Your task to perform on an android device: move a message to another label in the gmail app Image 0: 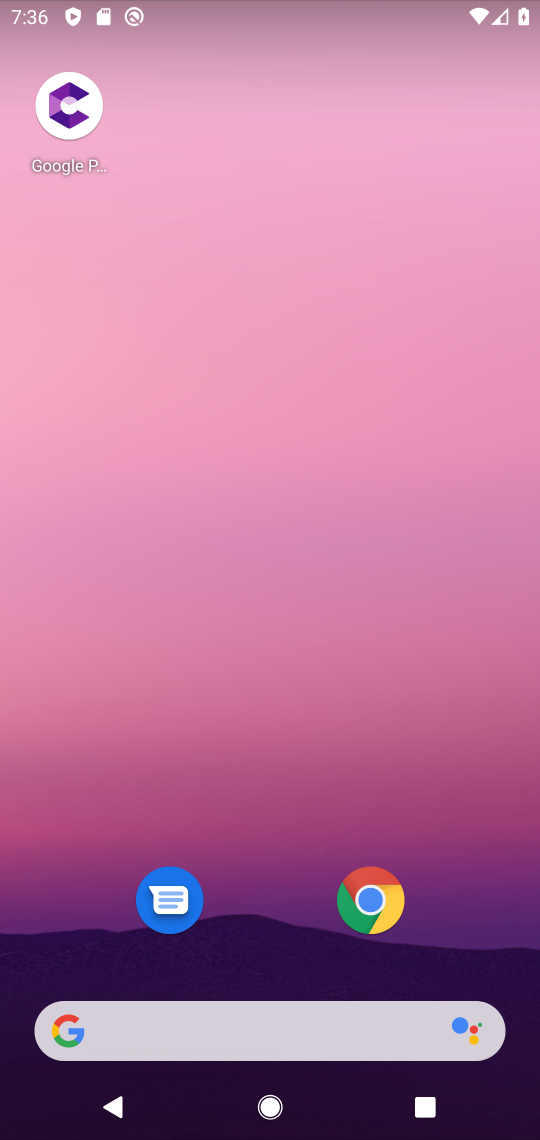
Step 0: drag from (220, 1002) to (189, 98)
Your task to perform on an android device: move a message to another label in the gmail app Image 1: 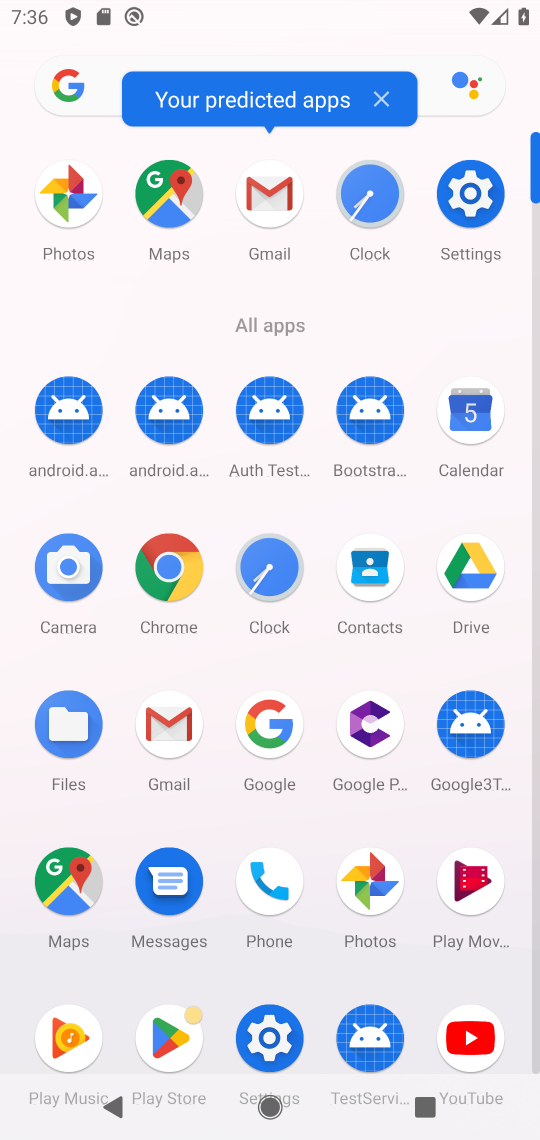
Step 1: click (188, 735)
Your task to perform on an android device: move a message to another label in the gmail app Image 2: 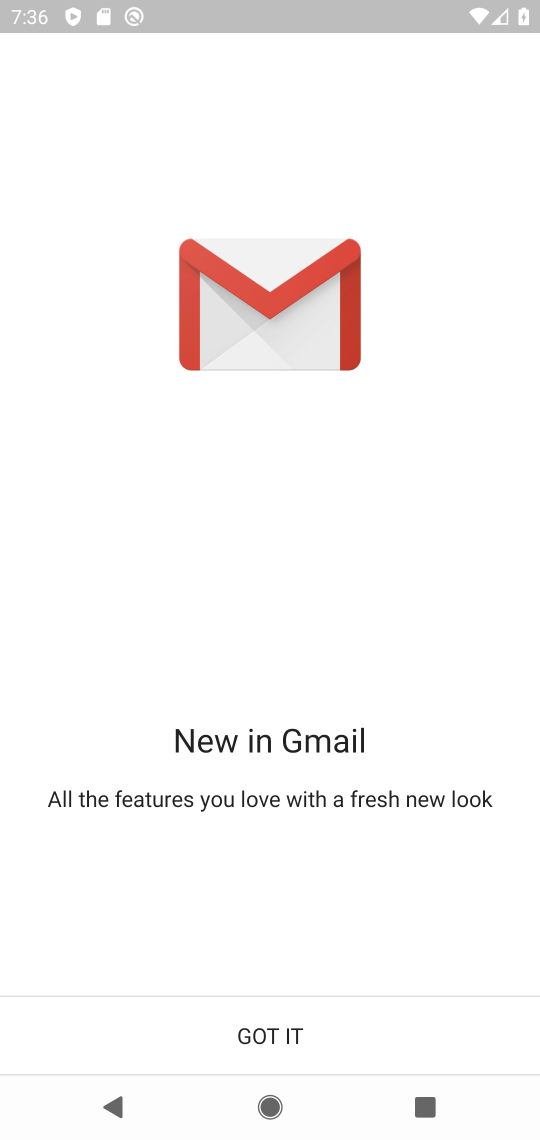
Step 2: click (287, 1013)
Your task to perform on an android device: move a message to another label in the gmail app Image 3: 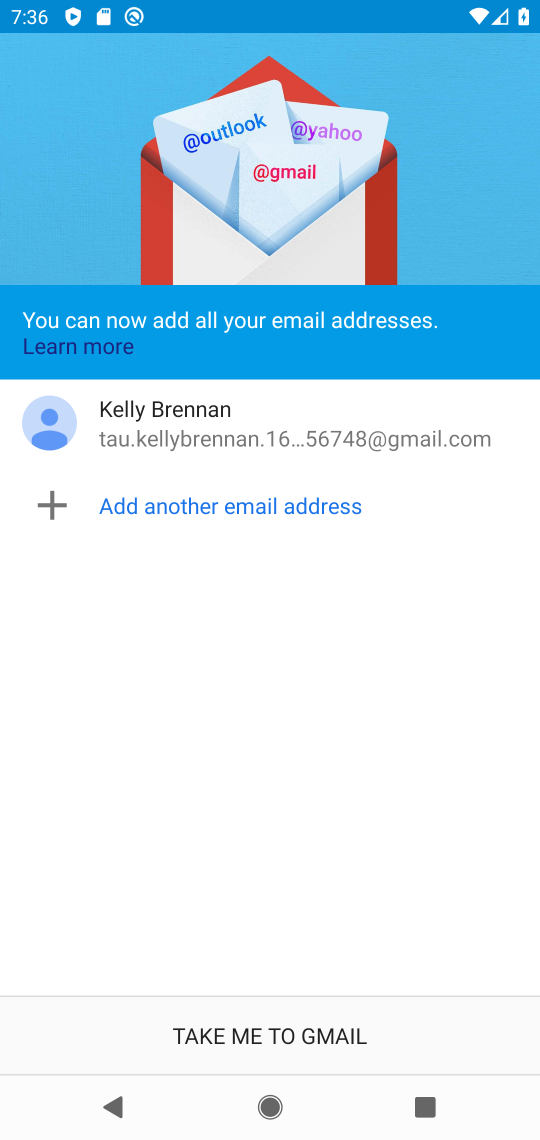
Step 3: click (289, 1038)
Your task to perform on an android device: move a message to another label in the gmail app Image 4: 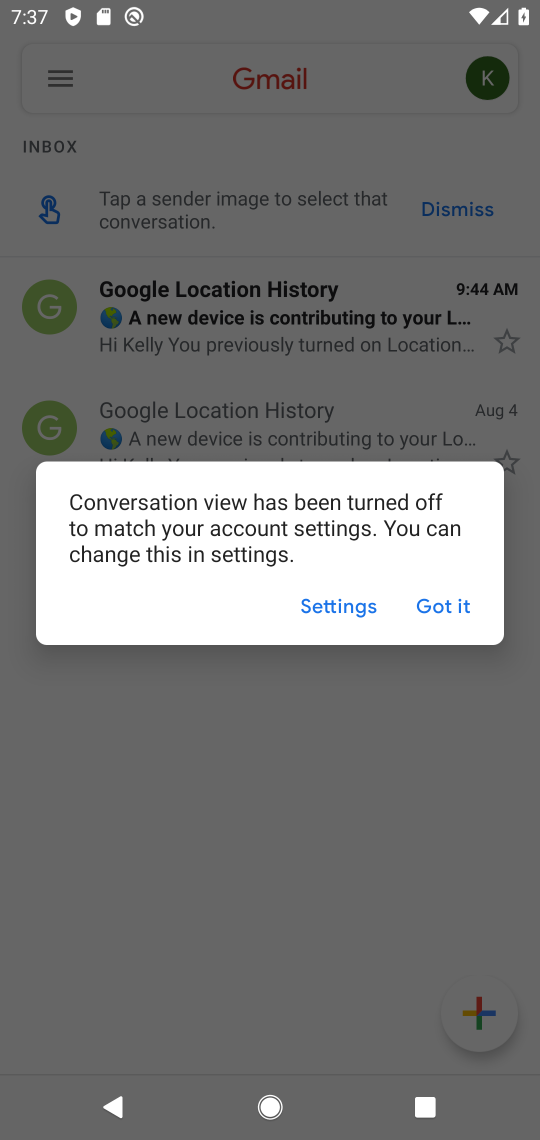
Step 4: click (441, 609)
Your task to perform on an android device: move a message to another label in the gmail app Image 5: 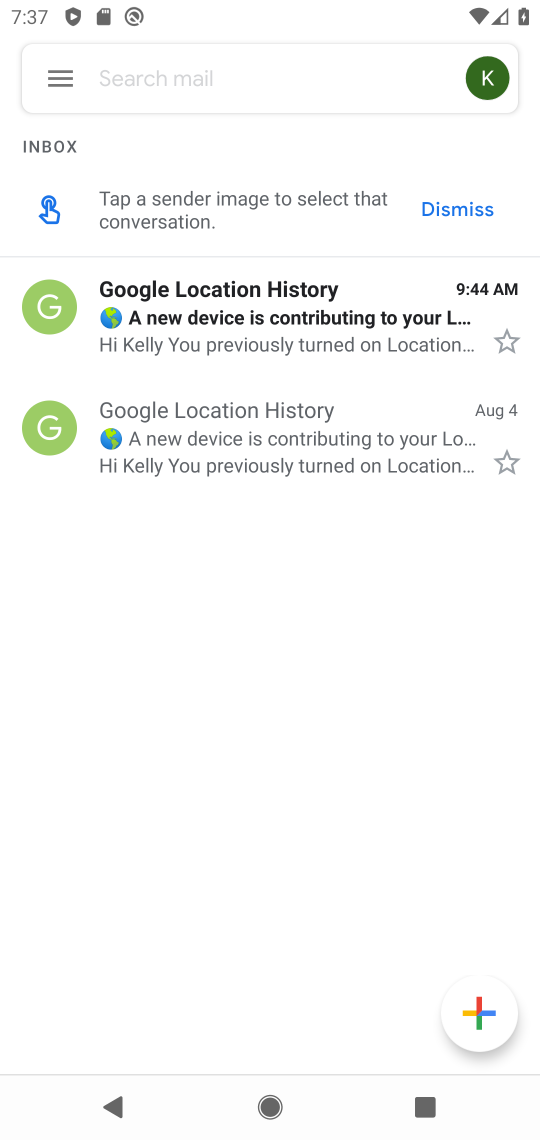
Step 5: click (282, 324)
Your task to perform on an android device: move a message to another label in the gmail app Image 6: 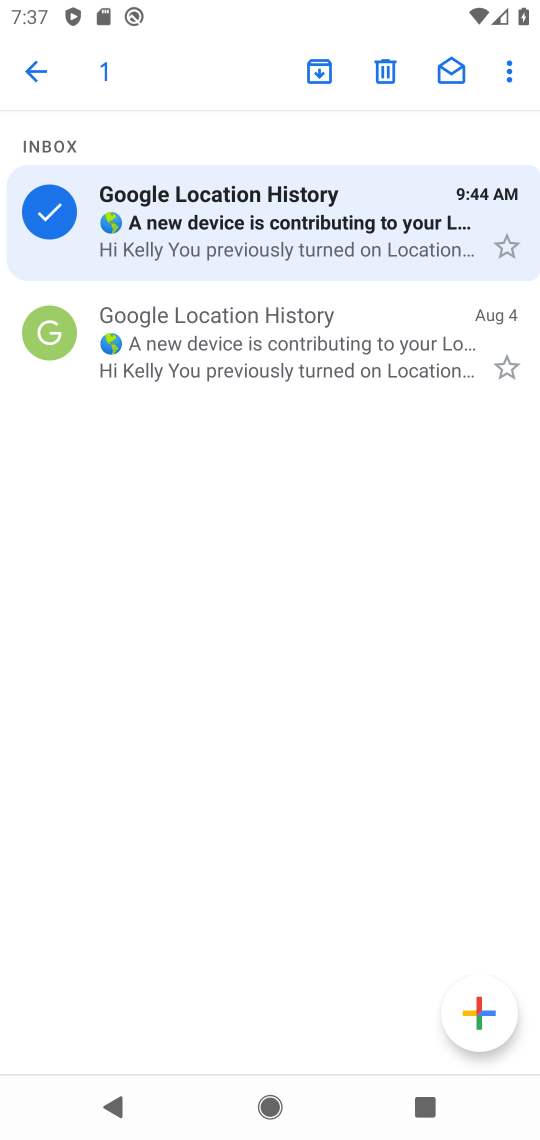
Step 6: click (504, 71)
Your task to perform on an android device: move a message to another label in the gmail app Image 7: 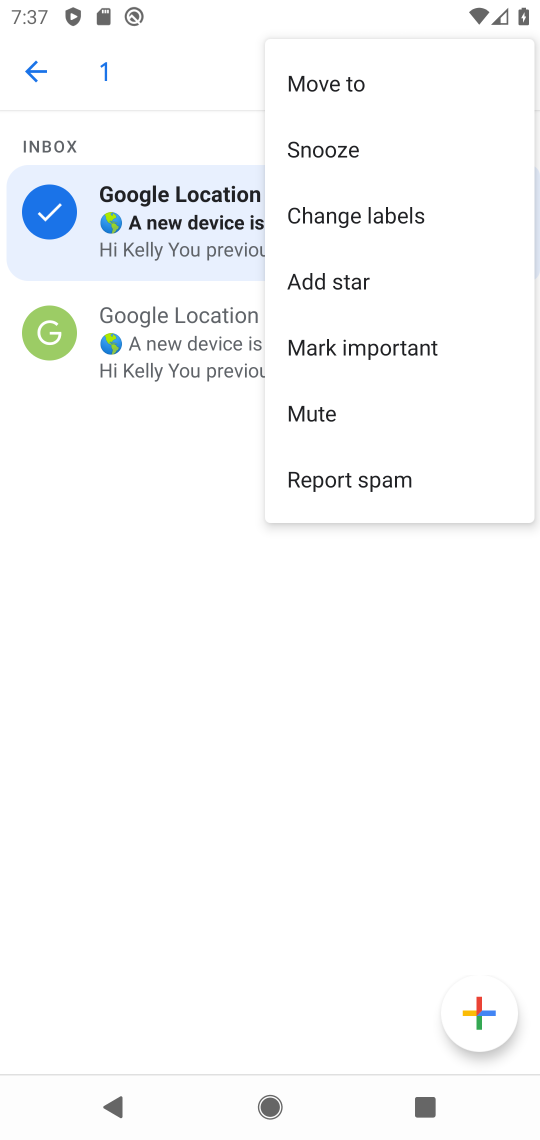
Step 7: click (318, 83)
Your task to perform on an android device: move a message to another label in the gmail app Image 8: 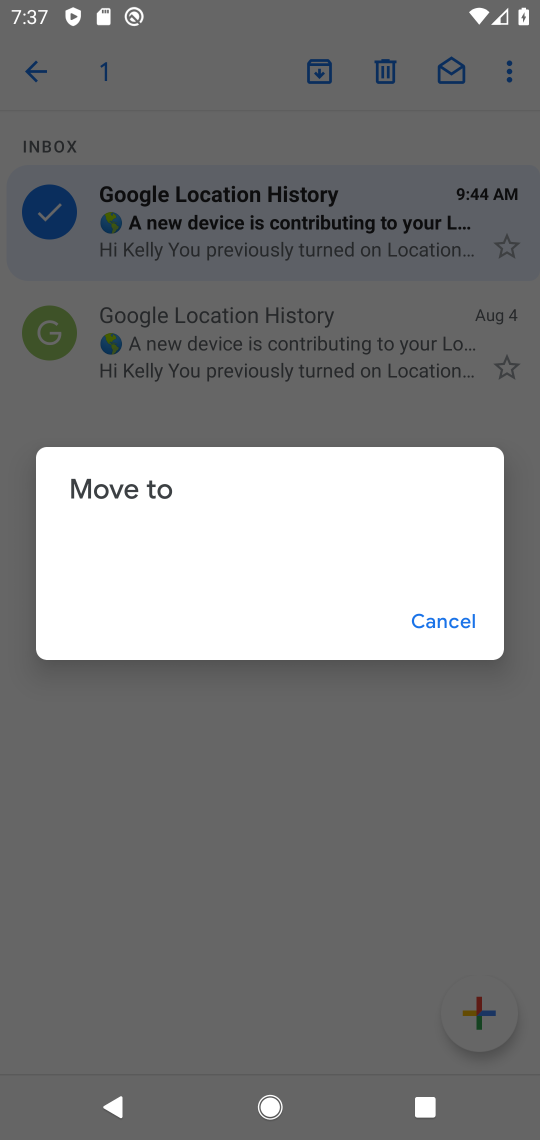
Step 8: click (441, 624)
Your task to perform on an android device: move a message to another label in the gmail app Image 9: 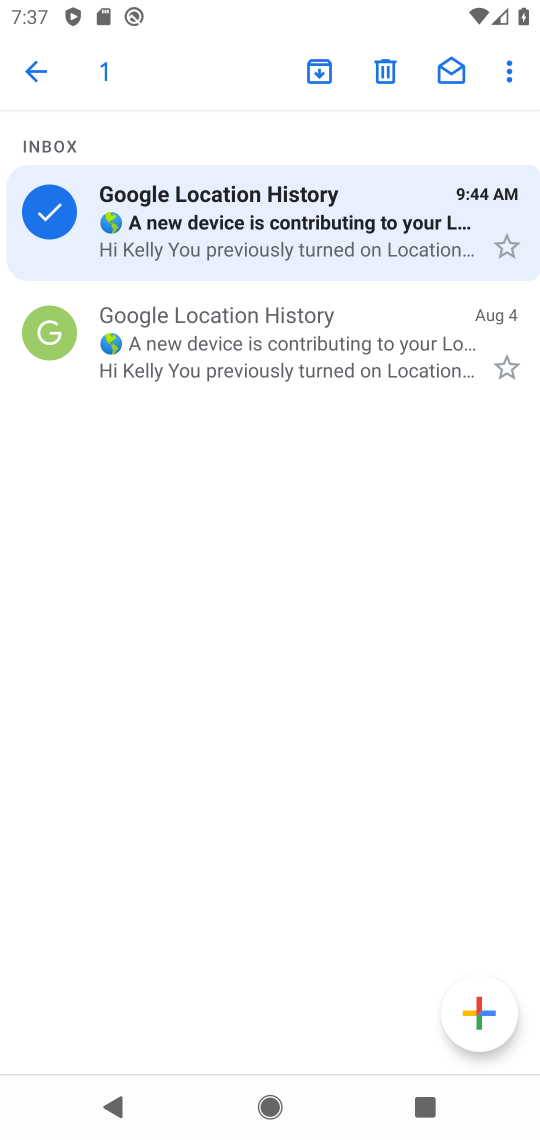
Step 9: task complete